Your task to perform on an android device: Show me productivity apps on the Play Store Image 0: 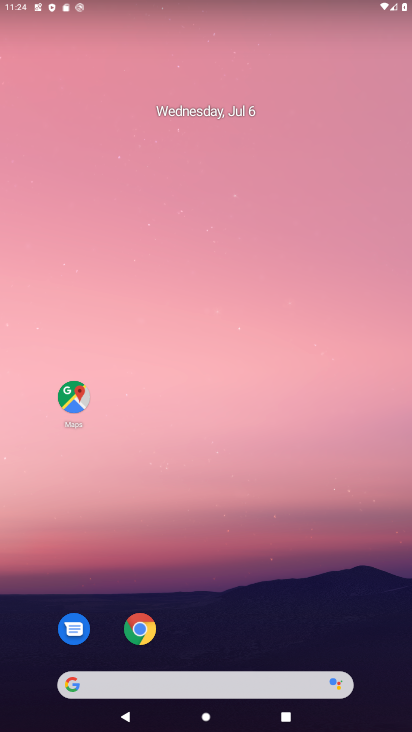
Step 0: drag from (255, 588) to (265, 174)
Your task to perform on an android device: Show me productivity apps on the Play Store Image 1: 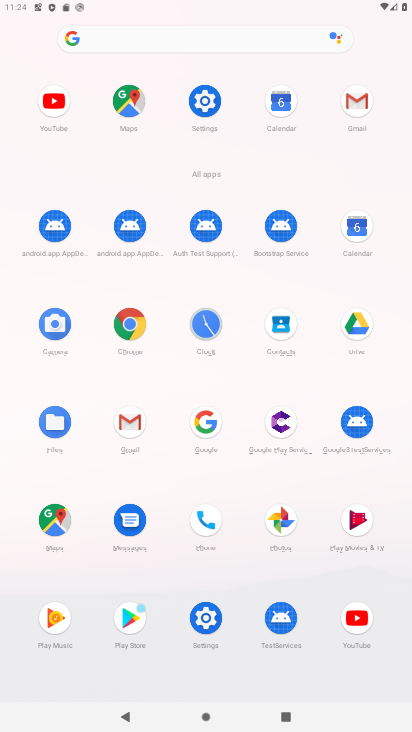
Step 1: click (133, 616)
Your task to perform on an android device: Show me productivity apps on the Play Store Image 2: 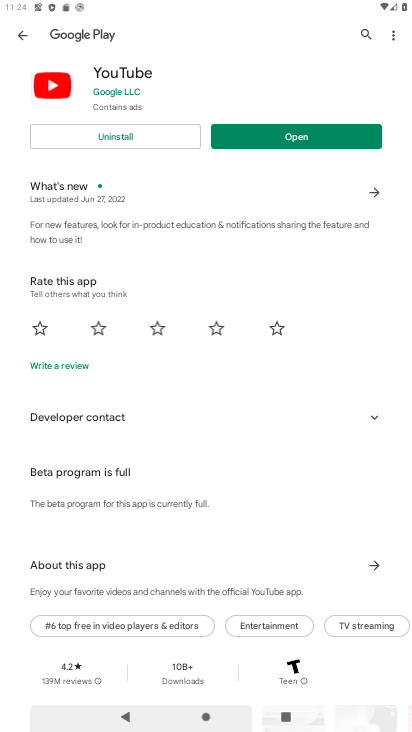
Step 2: press back button
Your task to perform on an android device: Show me productivity apps on the Play Store Image 3: 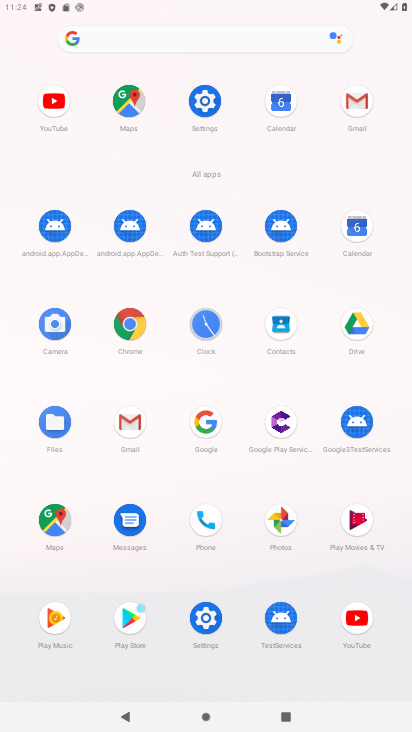
Step 3: click (132, 615)
Your task to perform on an android device: Show me productivity apps on the Play Store Image 4: 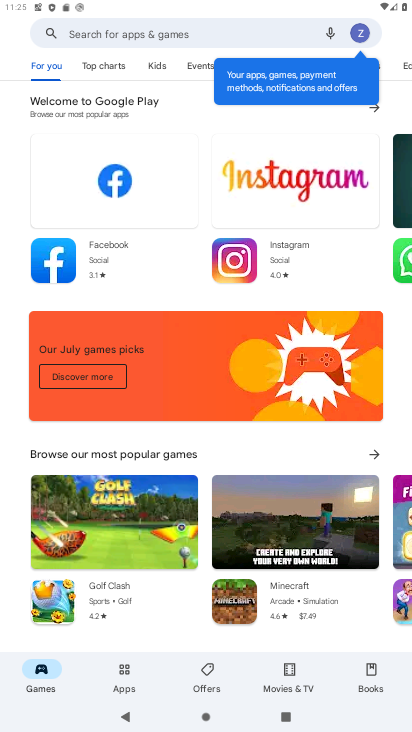
Step 4: click (128, 665)
Your task to perform on an android device: Show me productivity apps on the Play Store Image 5: 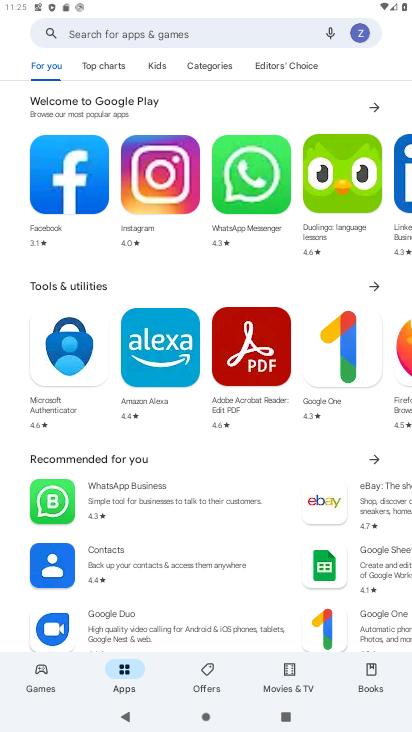
Step 5: click (212, 66)
Your task to perform on an android device: Show me productivity apps on the Play Store Image 6: 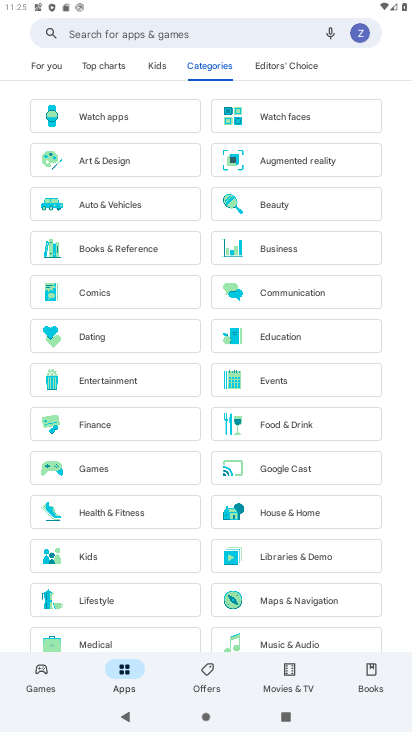
Step 6: drag from (117, 527) to (165, 431)
Your task to perform on an android device: Show me productivity apps on the Play Store Image 7: 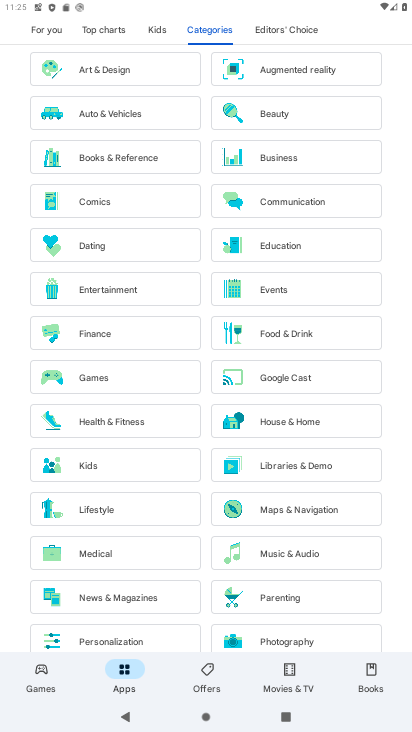
Step 7: drag from (139, 558) to (179, 462)
Your task to perform on an android device: Show me productivity apps on the Play Store Image 8: 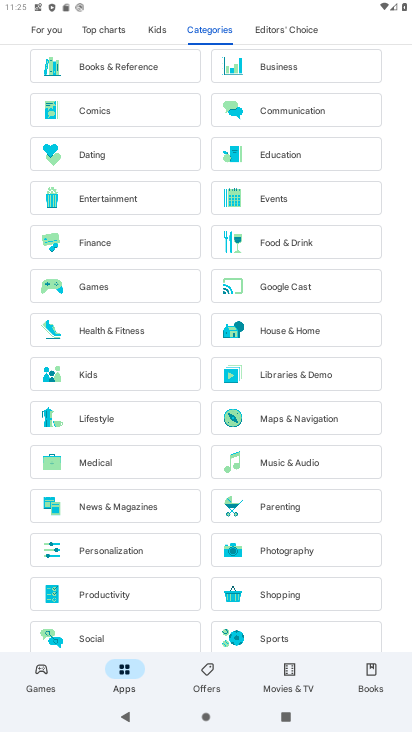
Step 8: click (119, 592)
Your task to perform on an android device: Show me productivity apps on the Play Store Image 9: 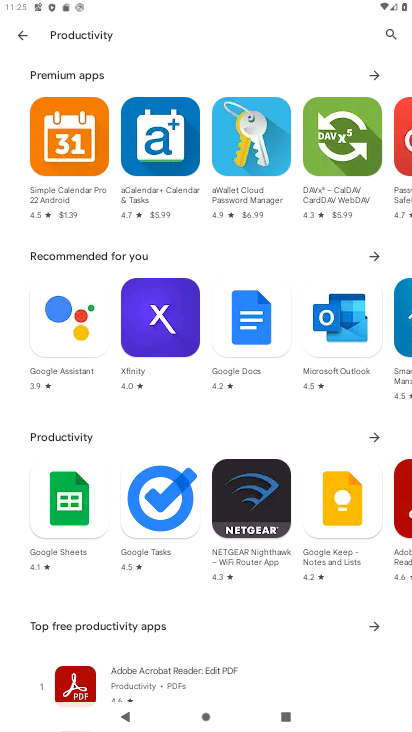
Step 9: task complete